Your task to perform on an android device: toggle notifications settings in the gmail app Image 0: 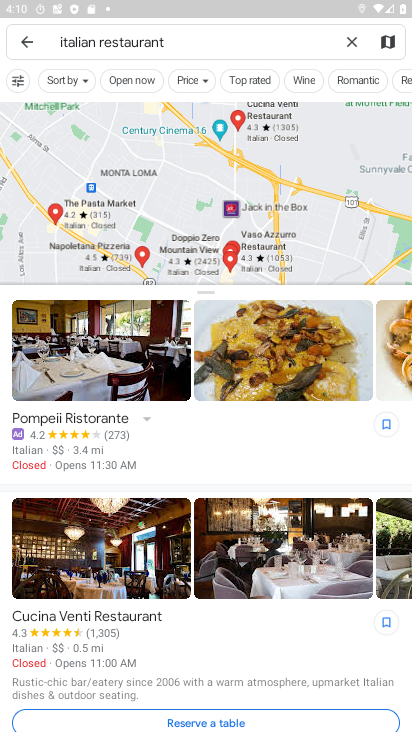
Step 0: press back button
Your task to perform on an android device: toggle notifications settings in the gmail app Image 1: 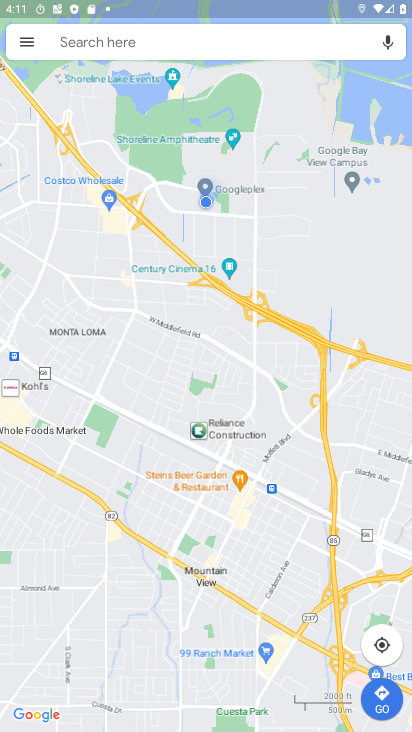
Step 1: press back button
Your task to perform on an android device: toggle notifications settings in the gmail app Image 2: 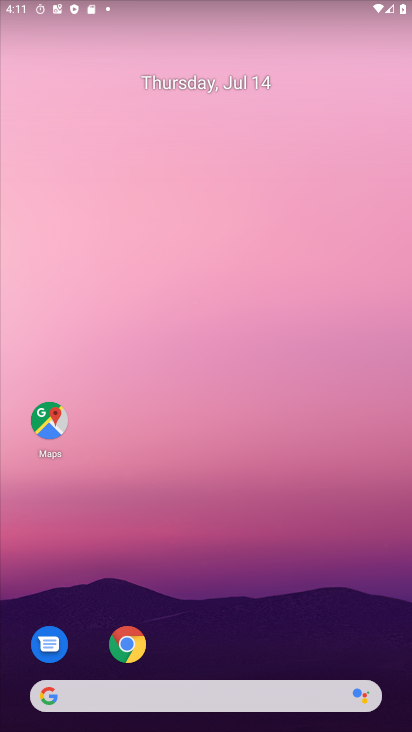
Step 2: drag from (259, 648) to (326, 78)
Your task to perform on an android device: toggle notifications settings in the gmail app Image 3: 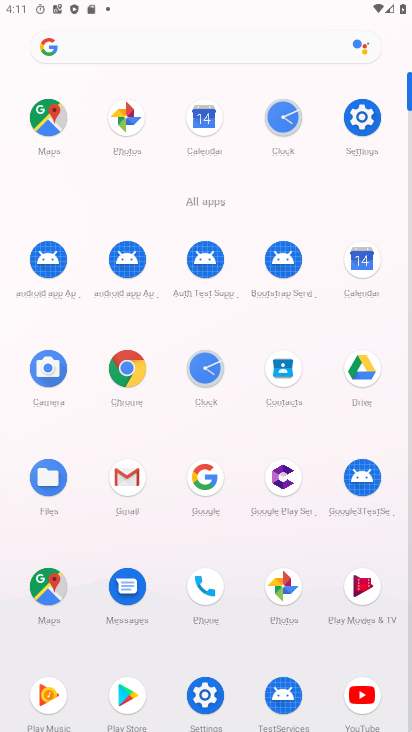
Step 3: click (121, 497)
Your task to perform on an android device: toggle notifications settings in the gmail app Image 4: 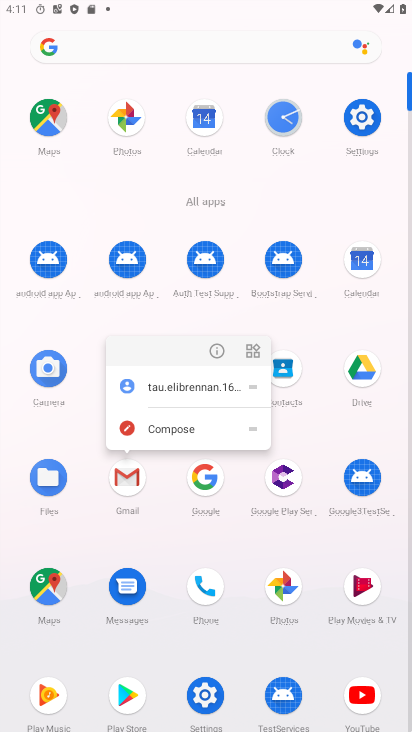
Step 4: click (208, 353)
Your task to perform on an android device: toggle notifications settings in the gmail app Image 5: 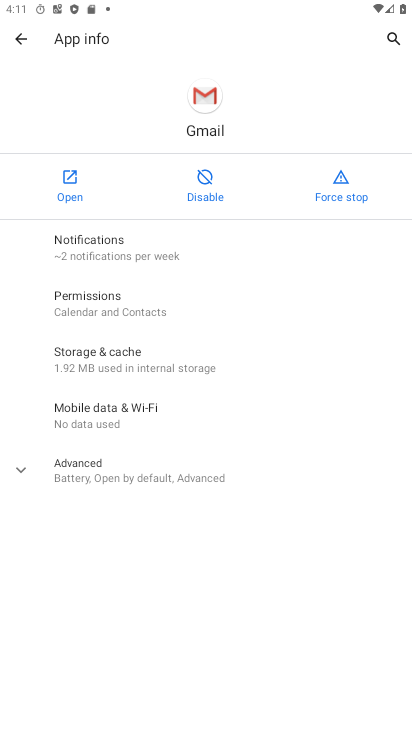
Step 5: click (106, 243)
Your task to perform on an android device: toggle notifications settings in the gmail app Image 6: 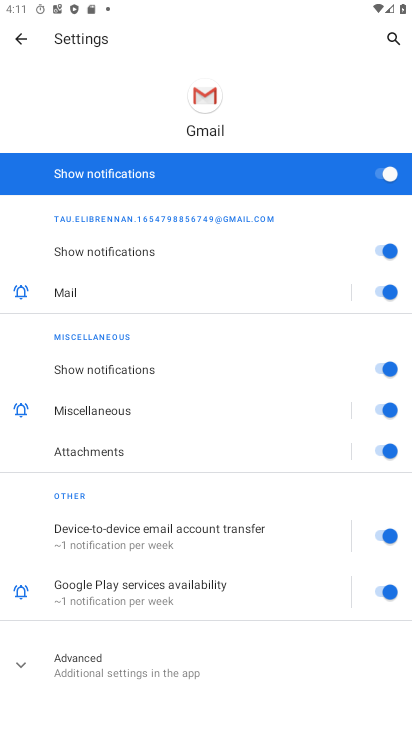
Step 6: click (393, 171)
Your task to perform on an android device: toggle notifications settings in the gmail app Image 7: 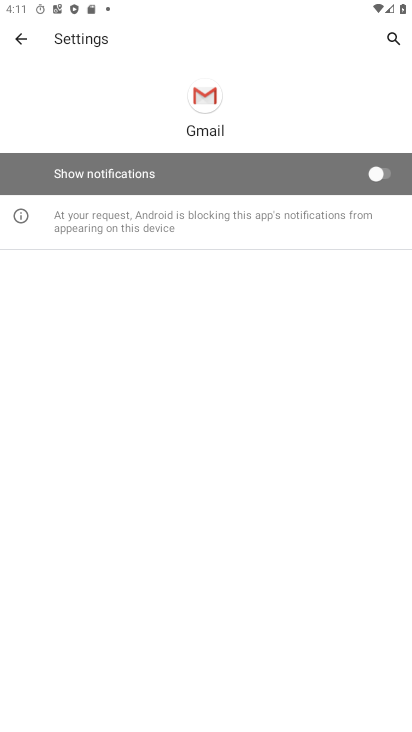
Step 7: task complete